Your task to perform on an android device: Add bose soundsport free to the cart on target.com Image 0: 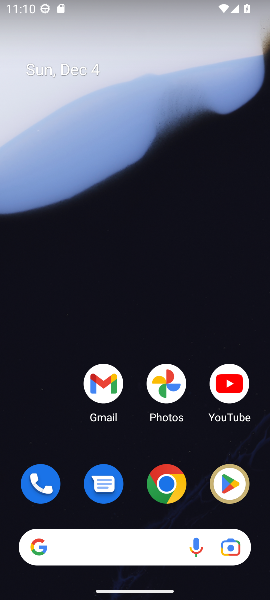
Step 0: click (168, 483)
Your task to perform on an android device: Add bose soundsport free to the cart on target.com Image 1: 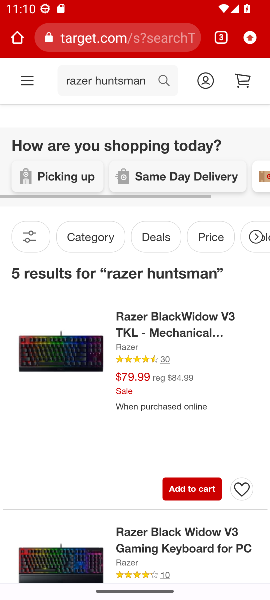
Step 1: click (74, 84)
Your task to perform on an android device: Add bose soundsport free to the cart on target.com Image 2: 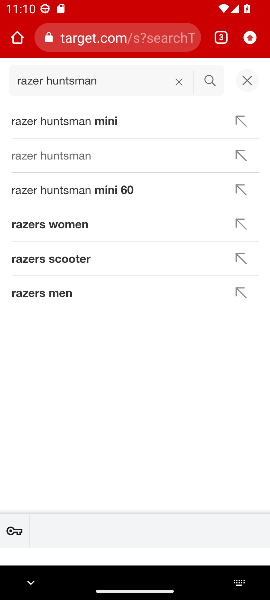
Step 2: click (179, 85)
Your task to perform on an android device: Add bose soundsport free to the cart on target.com Image 3: 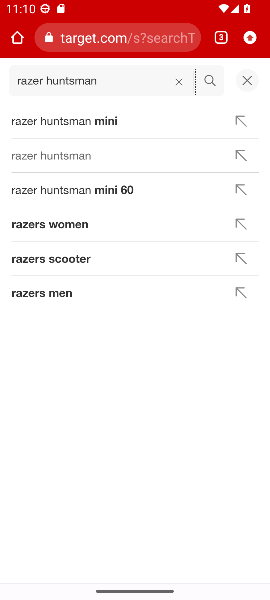
Step 3: click (179, 85)
Your task to perform on an android device: Add bose soundsport free to the cart on target.com Image 4: 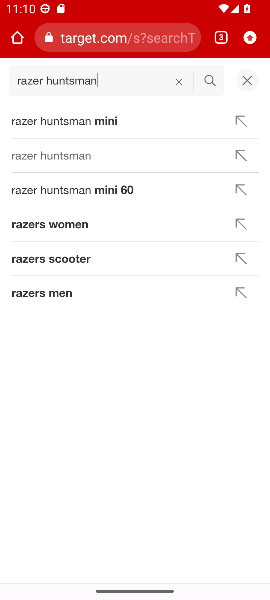
Step 4: click (156, 83)
Your task to perform on an android device: Add bose soundsport free to the cart on target.com Image 5: 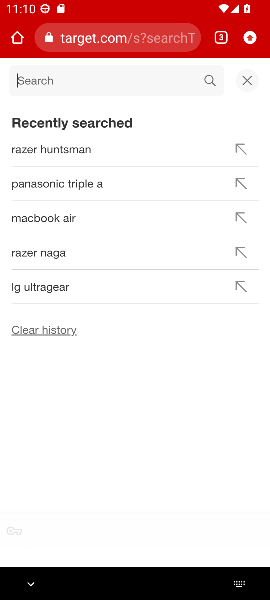
Step 5: click (184, 77)
Your task to perform on an android device: Add bose soundsport free to the cart on target.com Image 6: 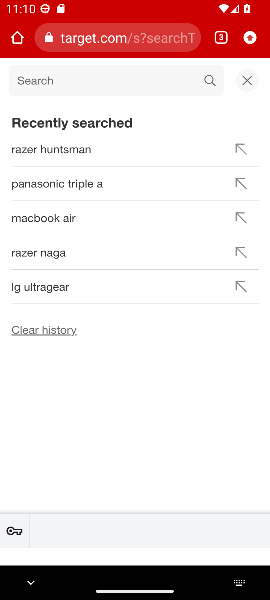
Step 6: type "bose soundsport free"
Your task to perform on an android device: Add bose soundsport free to the cart on target.com Image 7: 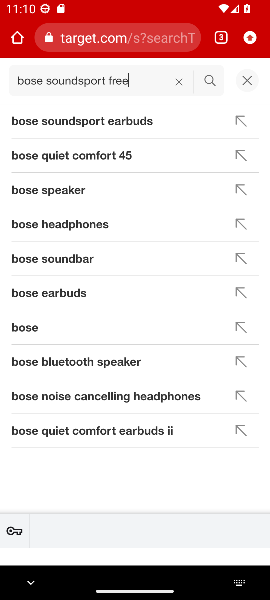
Step 7: click (210, 81)
Your task to perform on an android device: Add bose soundsport free to the cart on target.com Image 8: 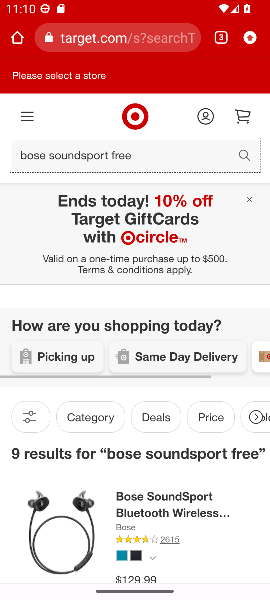
Step 8: task complete